Your task to perform on an android device: When is my next appointment? Image 0: 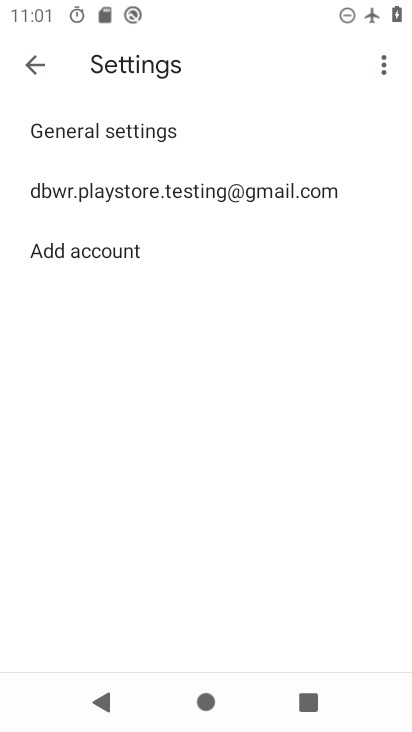
Step 0: press home button
Your task to perform on an android device: When is my next appointment? Image 1: 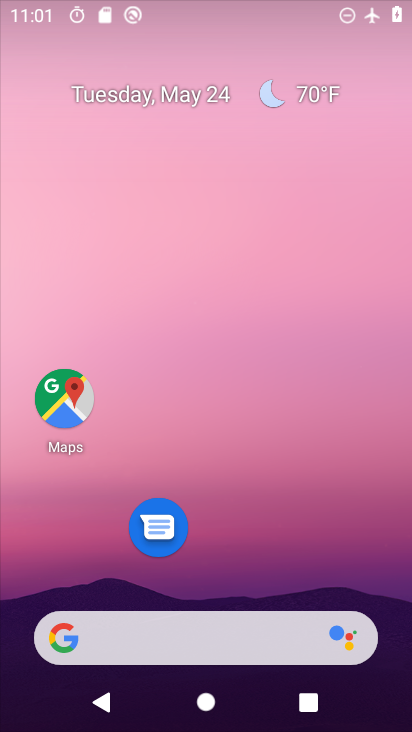
Step 1: drag from (260, 555) to (206, 106)
Your task to perform on an android device: When is my next appointment? Image 2: 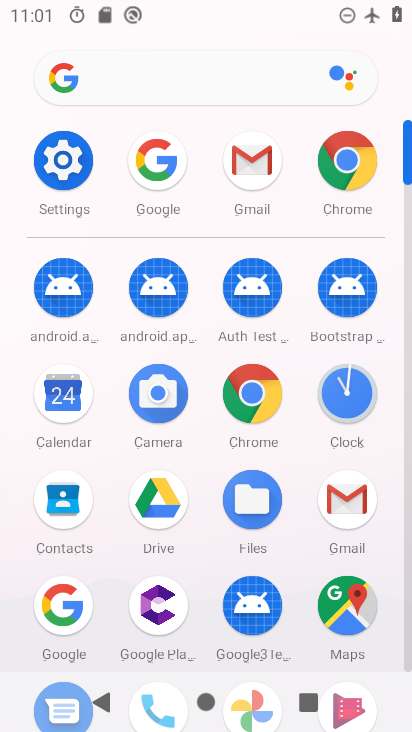
Step 2: click (62, 390)
Your task to perform on an android device: When is my next appointment? Image 3: 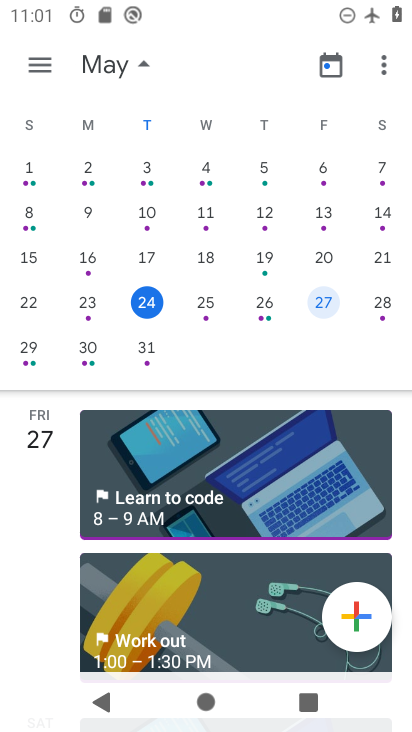
Step 3: click (264, 305)
Your task to perform on an android device: When is my next appointment? Image 4: 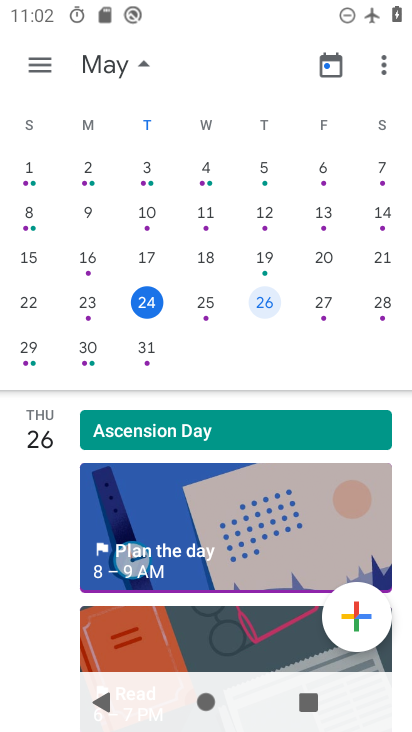
Step 4: task complete